Your task to perform on an android device: delete the emails in spam in the gmail app Image 0: 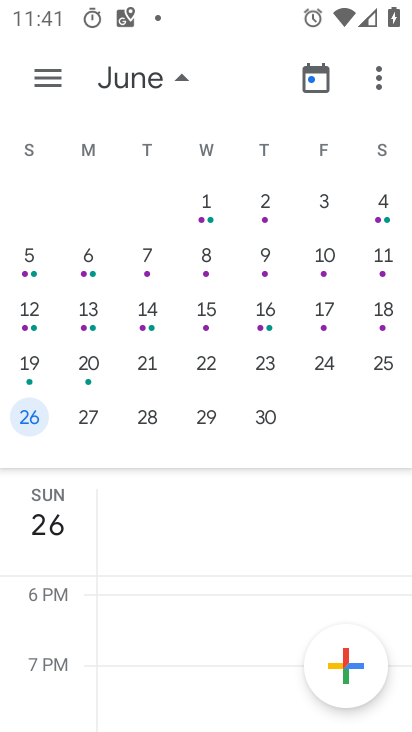
Step 0: press home button
Your task to perform on an android device: delete the emails in spam in the gmail app Image 1: 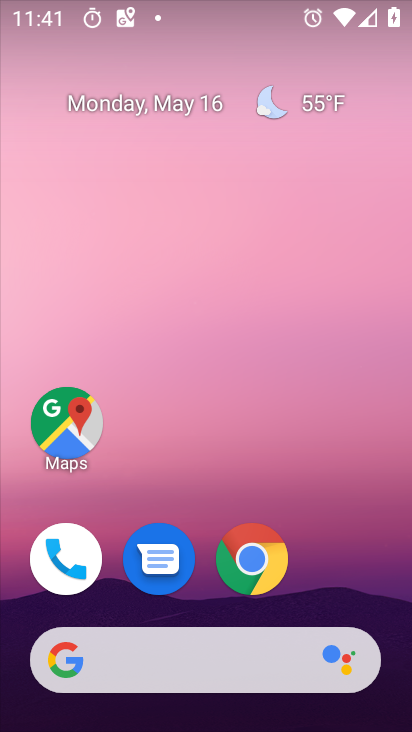
Step 1: drag from (338, 502) to (320, 2)
Your task to perform on an android device: delete the emails in spam in the gmail app Image 2: 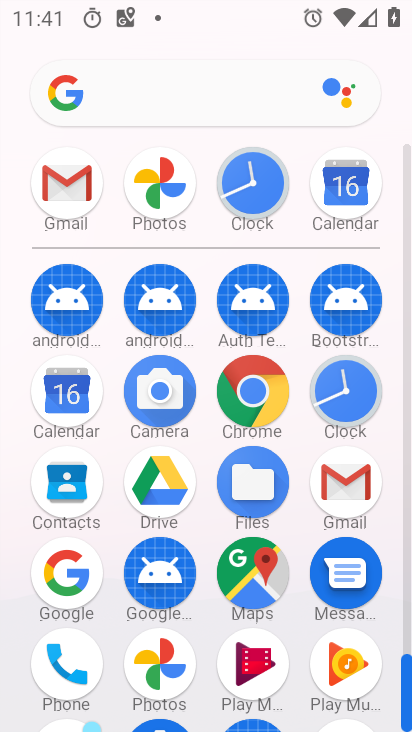
Step 2: click (74, 199)
Your task to perform on an android device: delete the emails in spam in the gmail app Image 3: 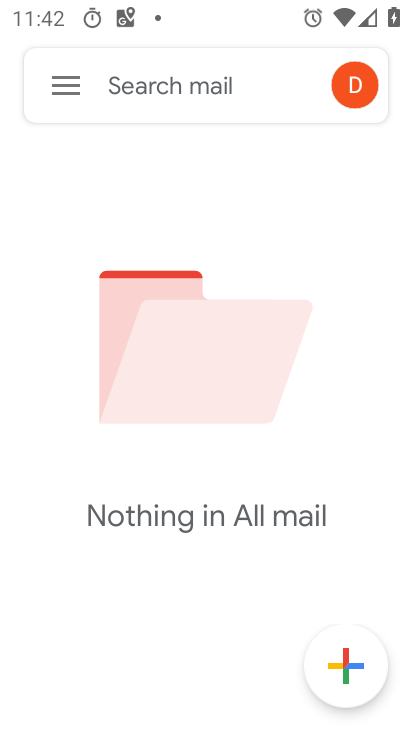
Step 3: click (67, 77)
Your task to perform on an android device: delete the emails in spam in the gmail app Image 4: 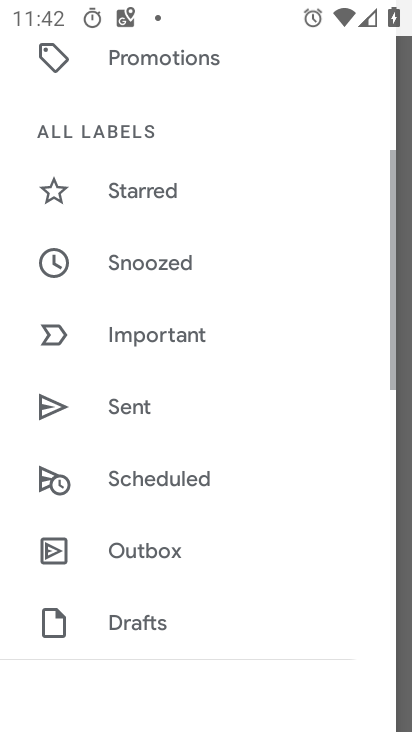
Step 4: drag from (221, 625) to (265, 111)
Your task to perform on an android device: delete the emails in spam in the gmail app Image 5: 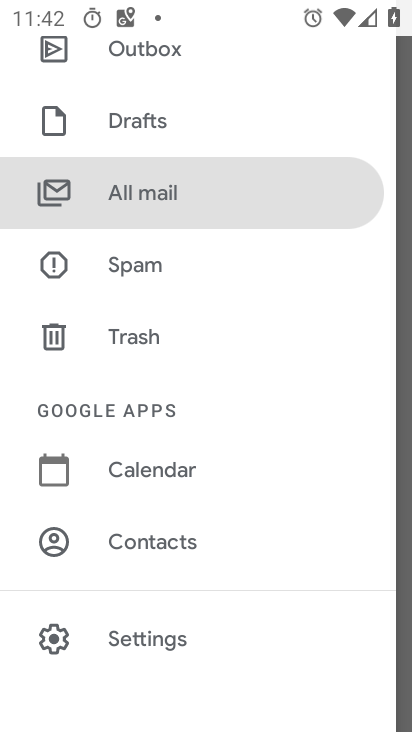
Step 5: drag from (172, 582) to (246, 162)
Your task to perform on an android device: delete the emails in spam in the gmail app Image 6: 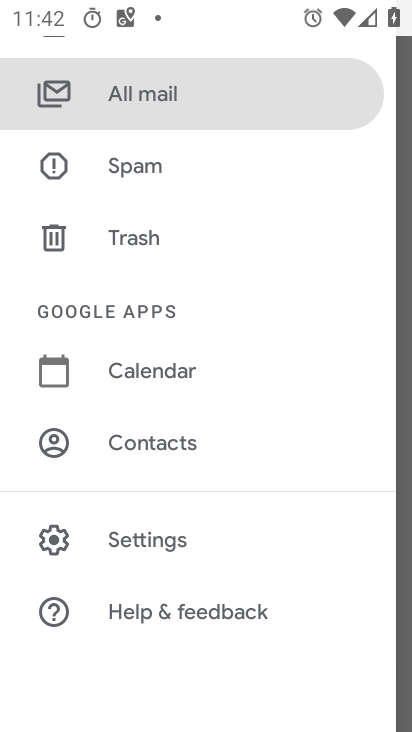
Step 6: drag from (157, 177) to (181, 686)
Your task to perform on an android device: delete the emails in spam in the gmail app Image 7: 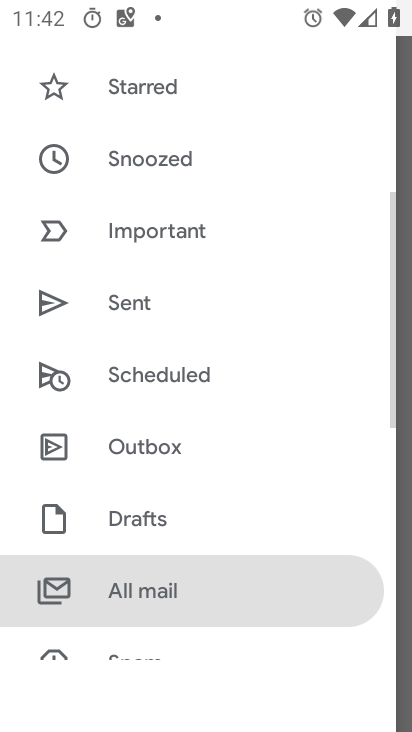
Step 7: drag from (122, 587) to (180, 329)
Your task to perform on an android device: delete the emails in spam in the gmail app Image 8: 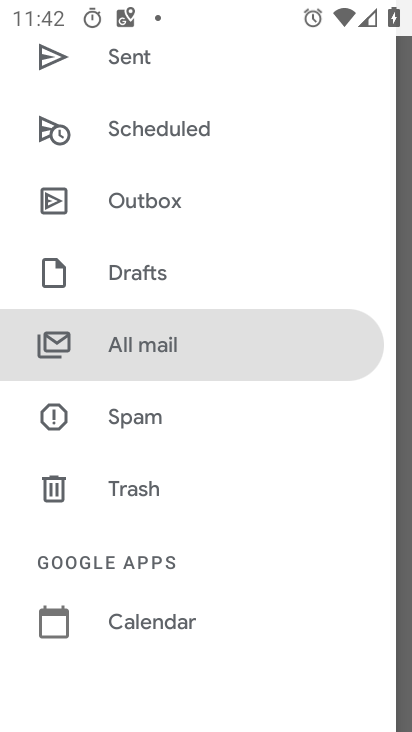
Step 8: click (137, 432)
Your task to perform on an android device: delete the emails in spam in the gmail app Image 9: 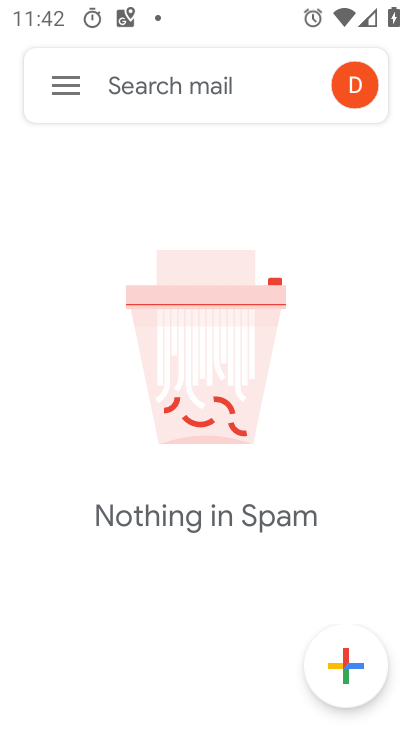
Step 9: task complete